Your task to perform on an android device: turn off notifications settings in the gmail app Image 0: 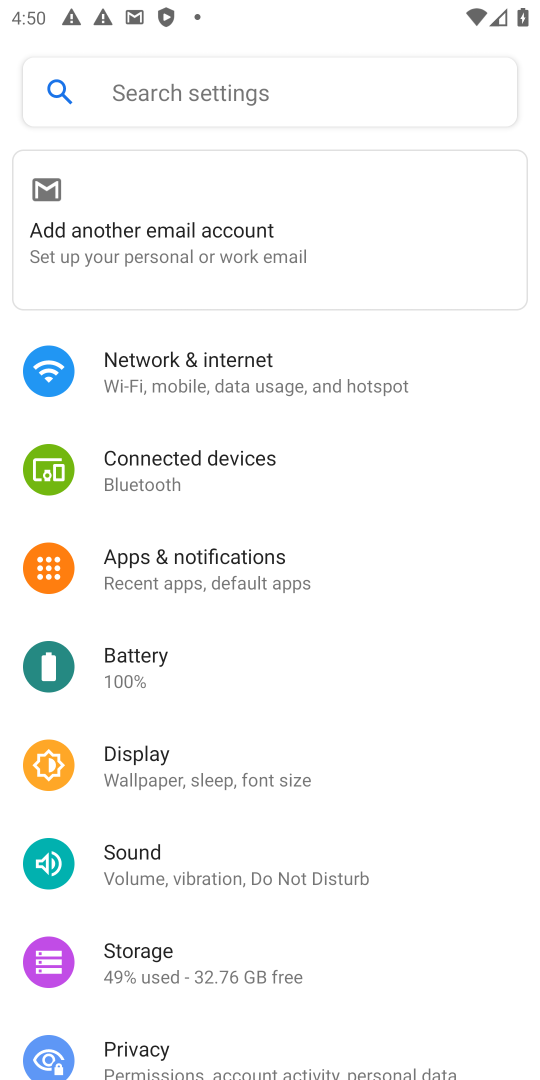
Step 0: press home button
Your task to perform on an android device: turn off notifications settings in the gmail app Image 1: 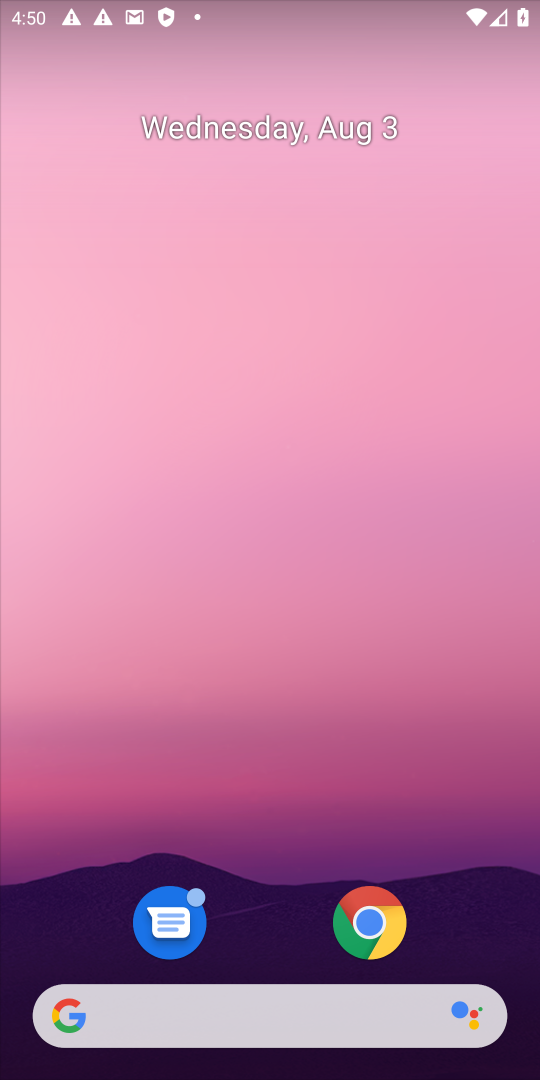
Step 1: drag from (503, 945) to (406, 98)
Your task to perform on an android device: turn off notifications settings in the gmail app Image 2: 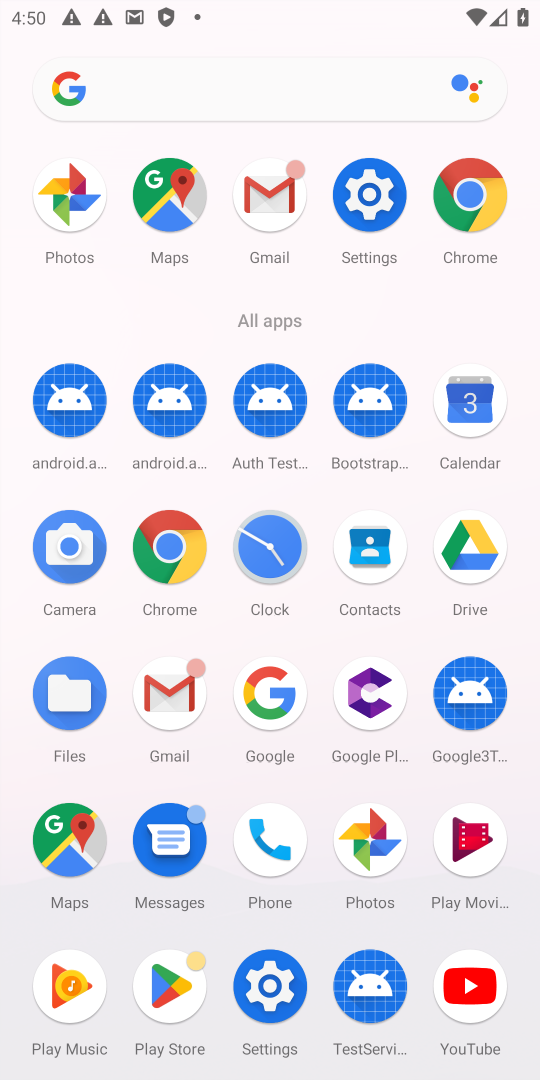
Step 2: click (278, 205)
Your task to perform on an android device: turn off notifications settings in the gmail app Image 3: 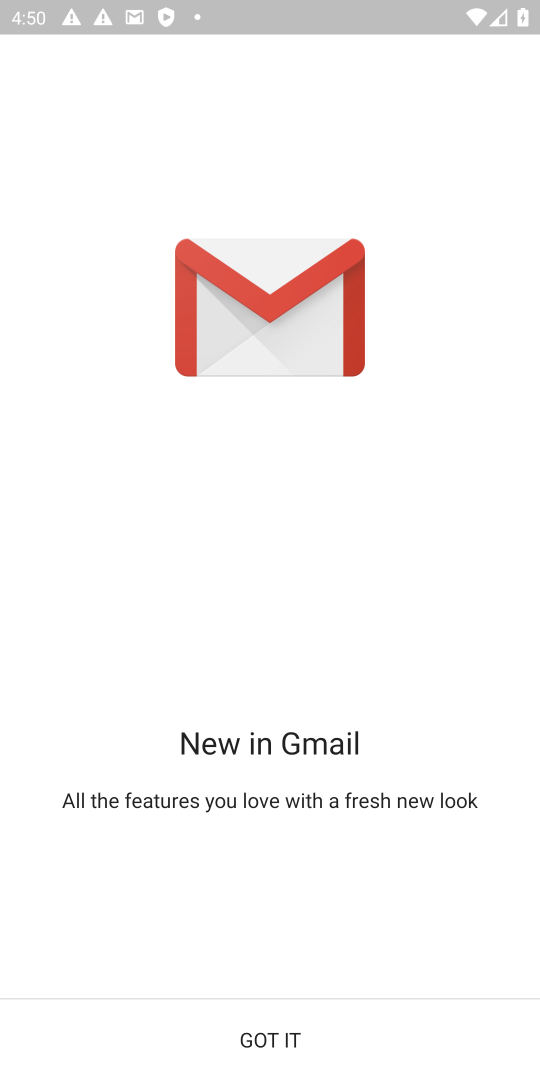
Step 3: click (280, 1034)
Your task to perform on an android device: turn off notifications settings in the gmail app Image 4: 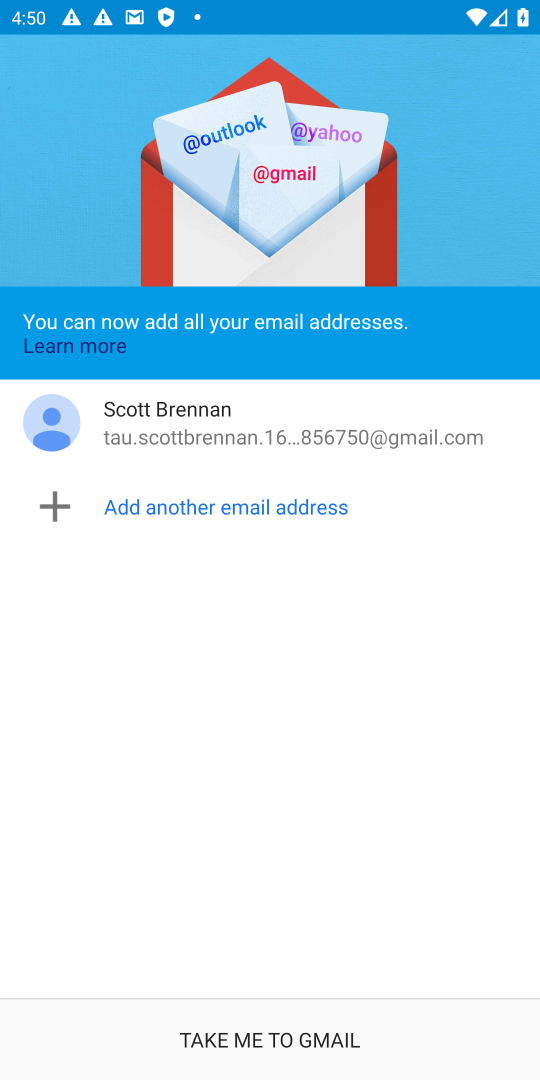
Step 4: click (280, 1034)
Your task to perform on an android device: turn off notifications settings in the gmail app Image 5: 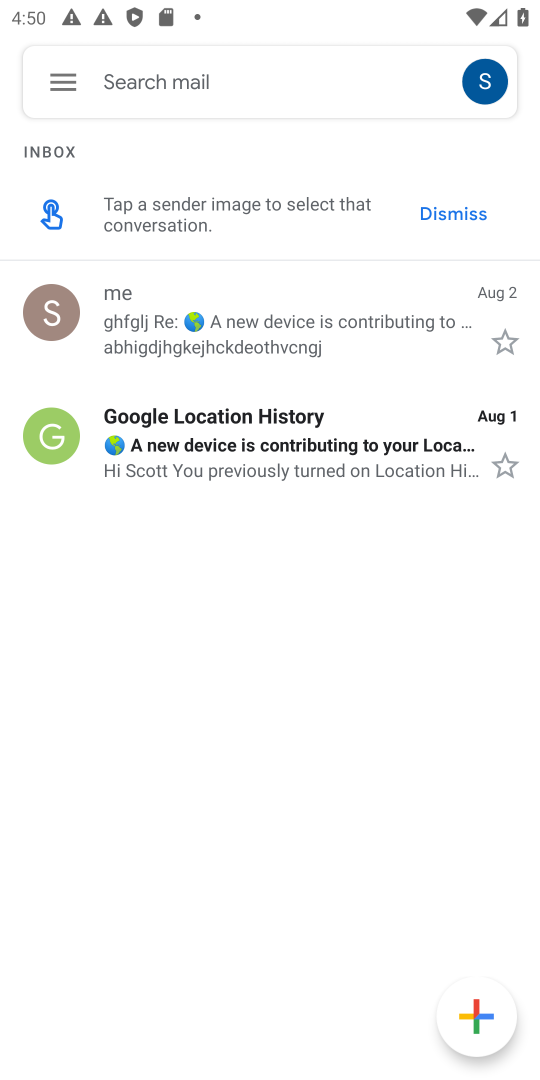
Step 5: click (61, 80)
Your task to perform on an android device: turn off notifications settings in the gmail app Image 6: 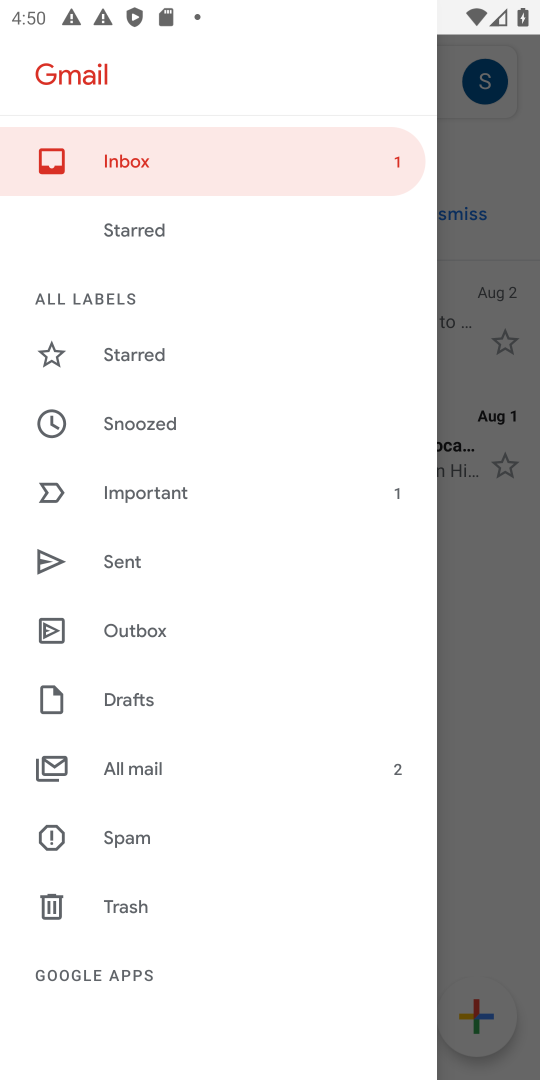
Step 6: drag from (195, 992) to (205, 242)
Your task to perform on an android device: turn off notifications settings in the gmail app Image 7: 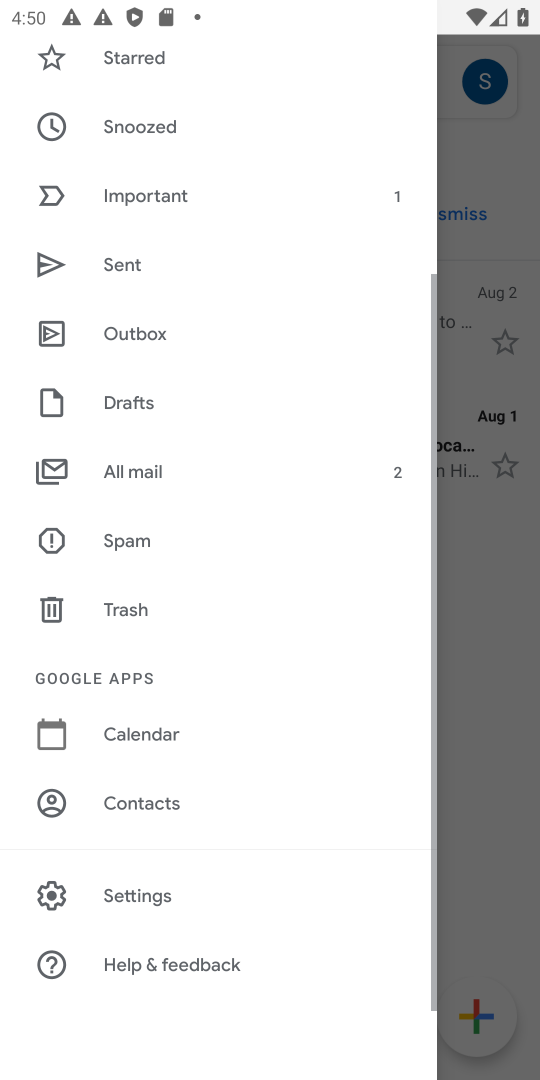
Step 7: click (221, 897)
Your task to perform on an android device: turn off notifications settings in the gmail app Image 8: 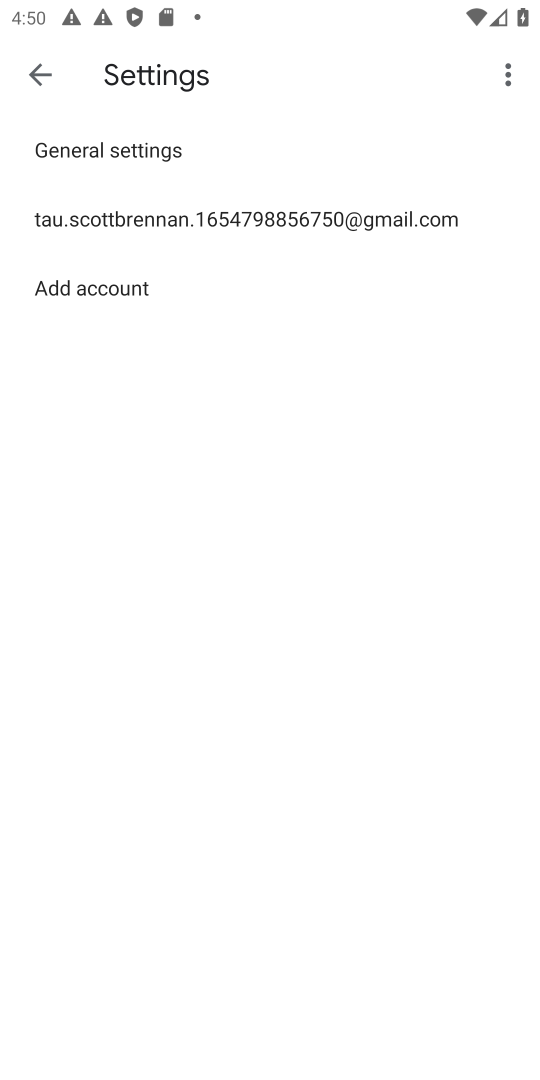
Step 8: click (295, 225)
Your task to perform on an android device: turn off notifications settings in the gmail app Image 9: 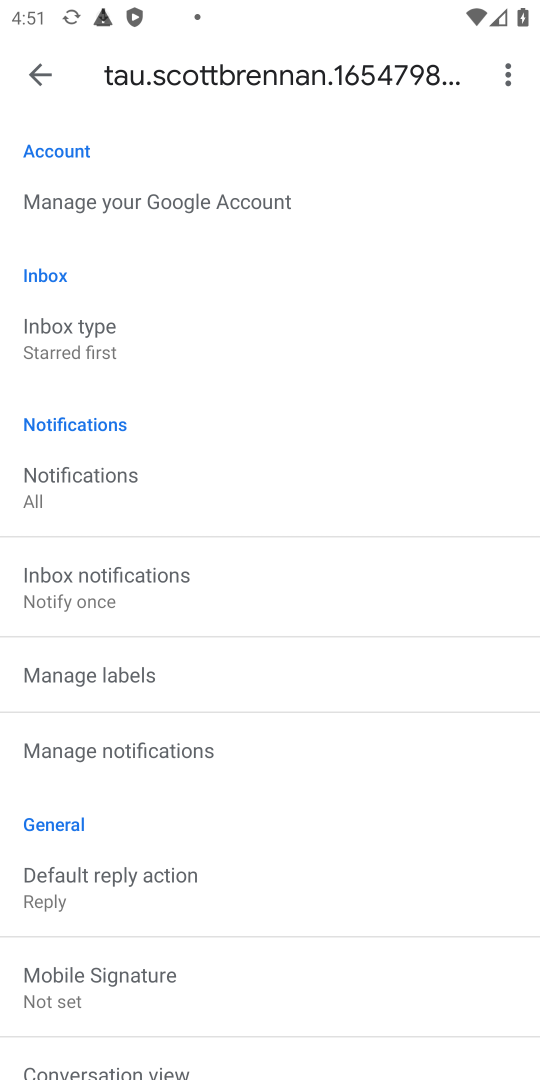
Step 9: click (273, 760)
Your task to perform on an android device: turn off notifications settings in the gmail app Image 10: 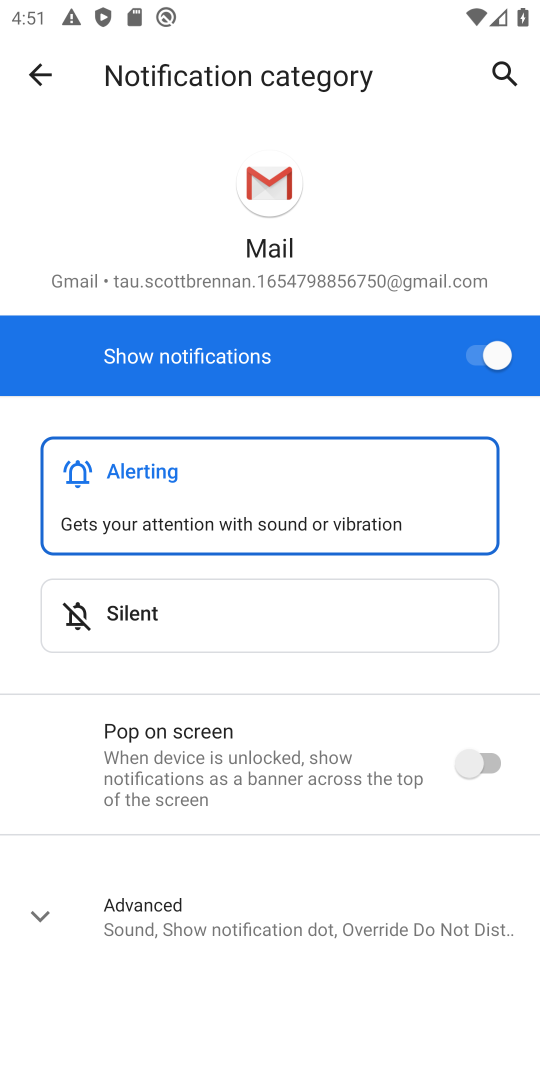
Step 10: task complete